Your task to perform on an android device: Open settings Image 0: 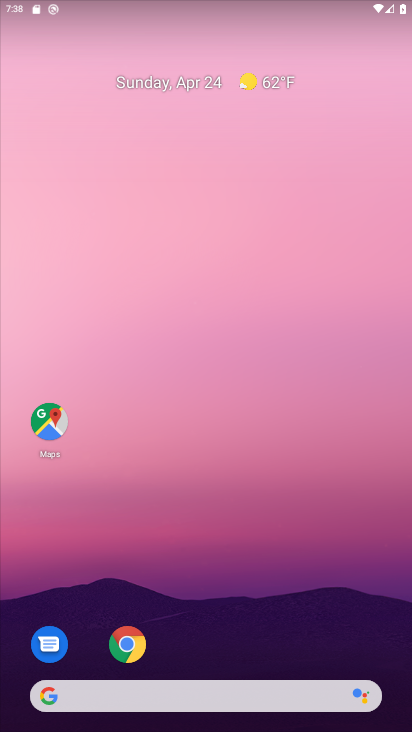
Step 0: drag from (214, 579) to (218, 106)
Your task to perform on an android device: Open settings Image 1: 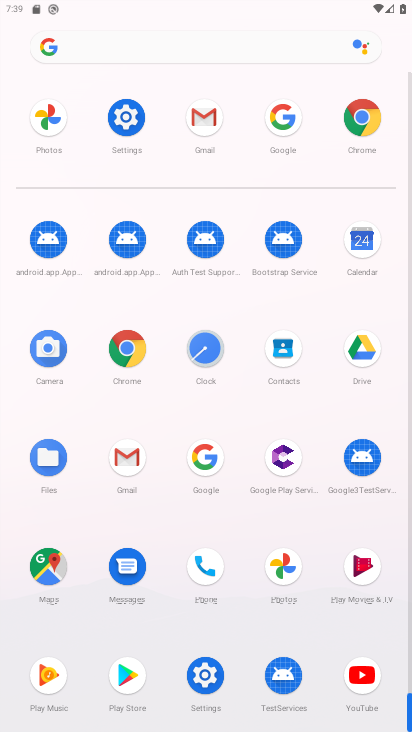
Step 1: click (202, 668)
Your task to perform on an android device: Open settings Image 2: 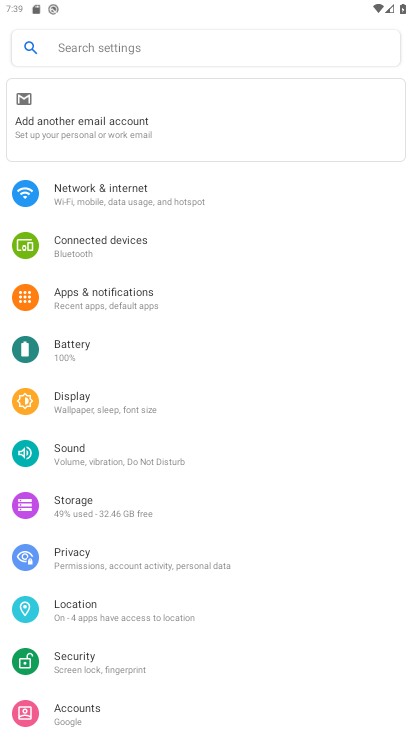
Step 2: task complete